Your task to perform on an android device: set an alarm Image 0: 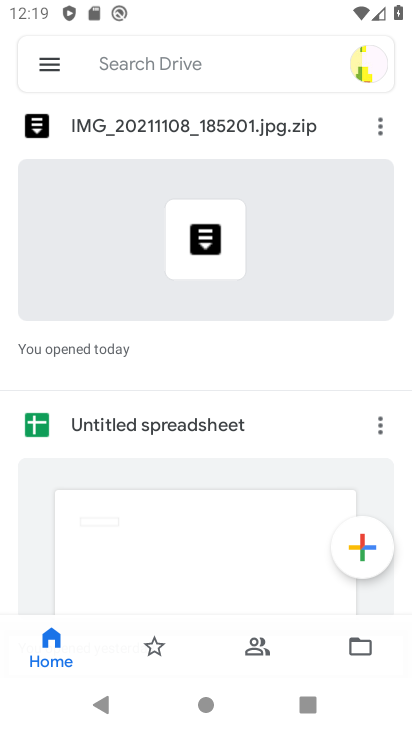
Step 0: press home button
Your task to perform on an android device: set an alarm Image 1: 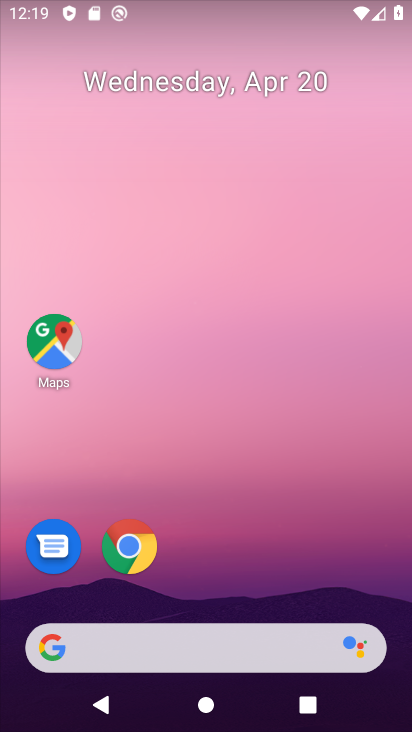
Step 1: drag from (280, 630) to (215, 17)
Your task to perform on an android device: set an alarm Image 2: 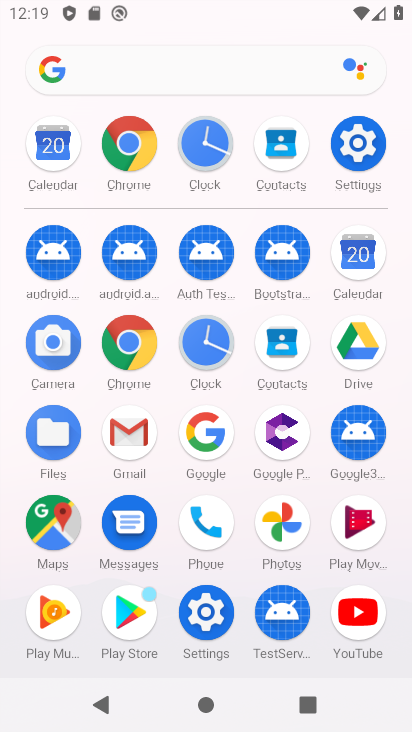
Step 2: click (206, 128)
Your task to perform on an android device: set an alarm Image 3: 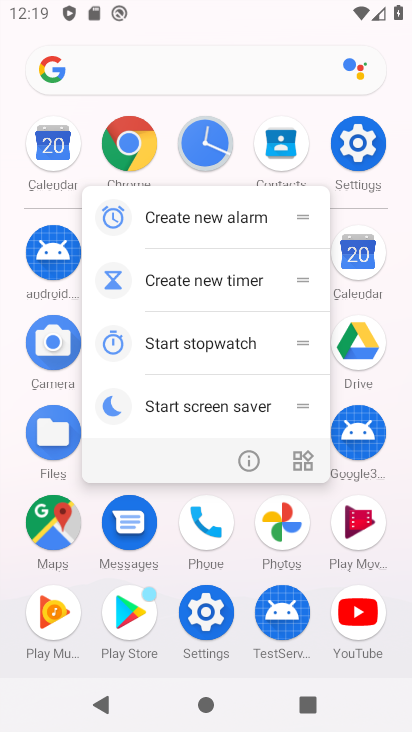
Step 3: click (206, 128)
Your task to perform on an android device: set an alarm Image 4: 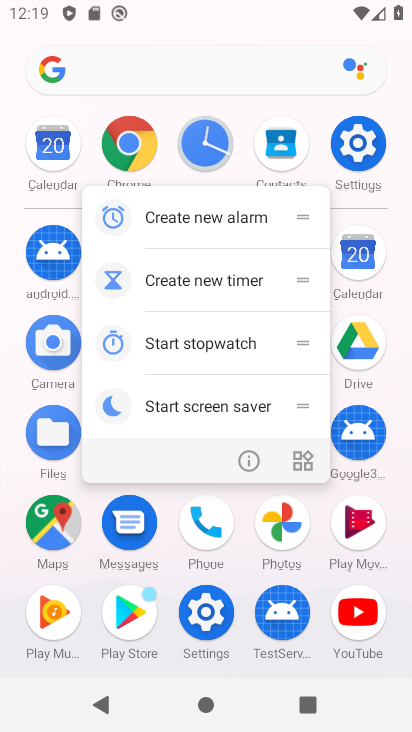
Step 4: click (206, 128)
Your task to perform on an android device: set an alarm Image 5: 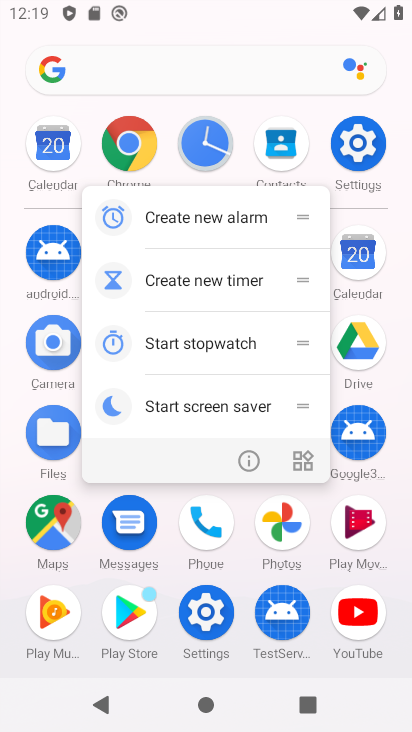
Step 5: click (206, 128)
Your task to perform on an android device: set an alarm Image 6: 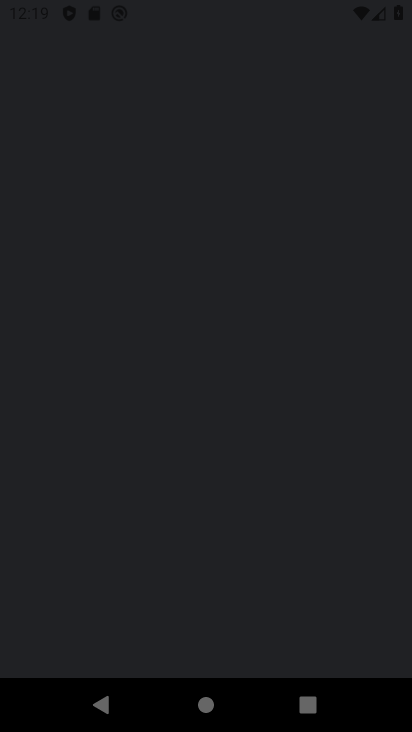
Step 6: click (206, 128)
Your task to perform on an android device: set an alarm Image 7: 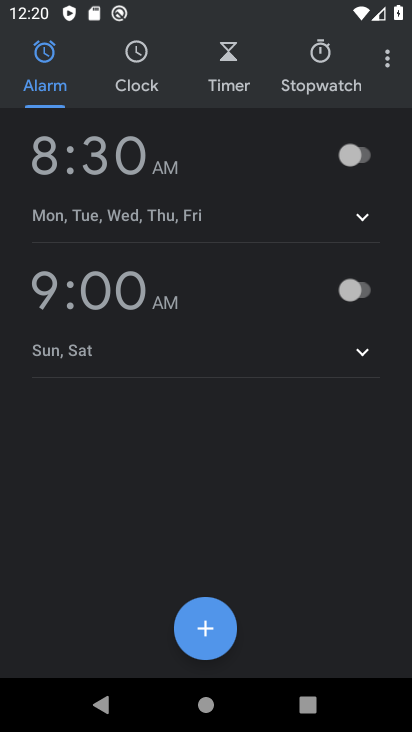
Step 7: click (216, 634)
Your task to perform on an android device: set an alarm Image 8: 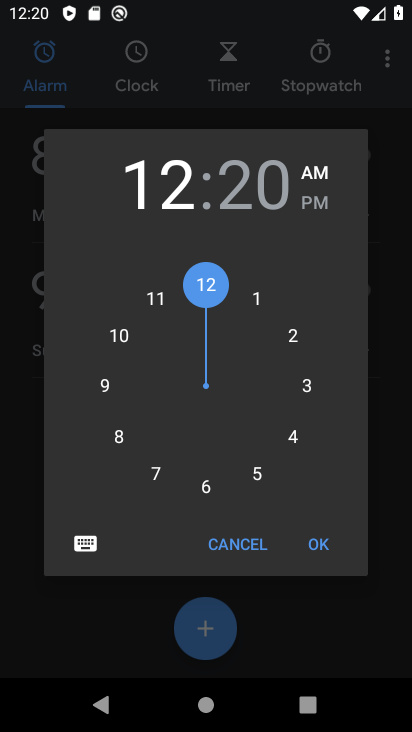
Step 8: click (317, 543)
Your task to perform on an android device: set an alarm Image 9: 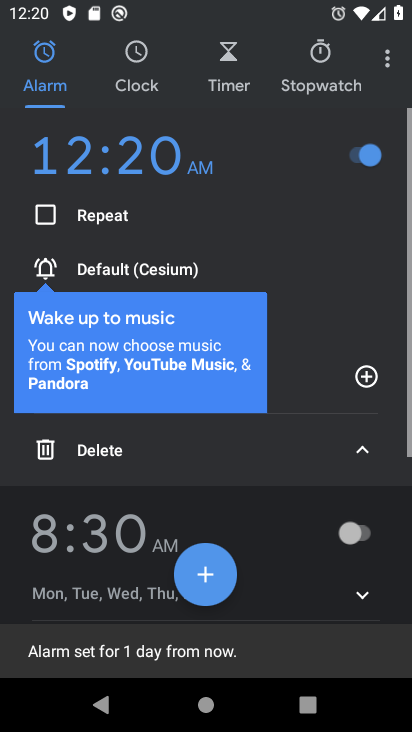
Step 9: task complete